Your task to perform on an android device: Is it going to rain this weekend? Image 0: 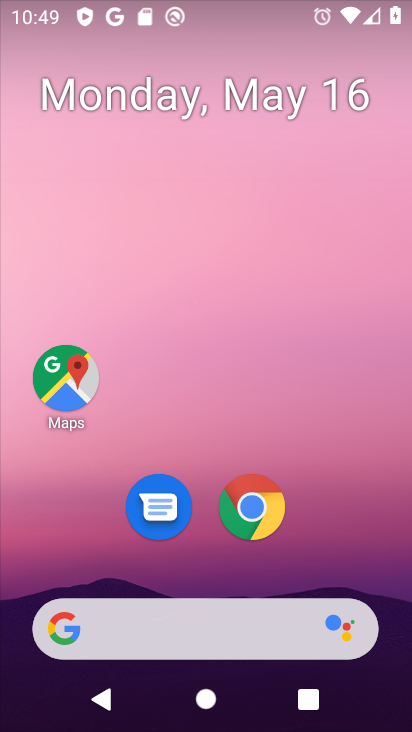
Step 0: click (212, 615)
Your task to perform on an android device: Is it going to rain this weekend? Image 1: 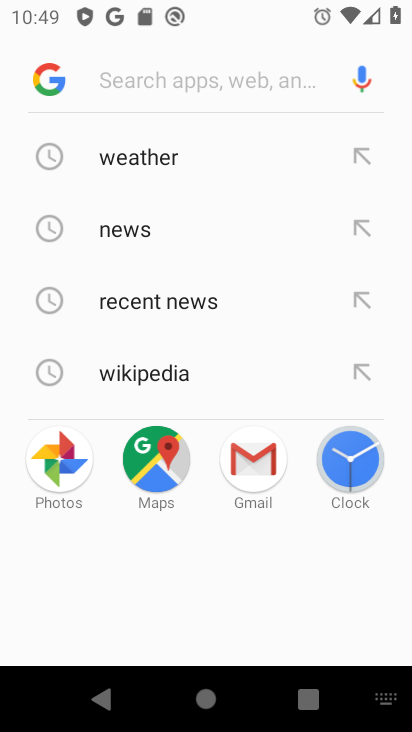
Step 1: click (181, 150)
Your task to perform on an android device: Is it going to rain this weekend? Image 2: 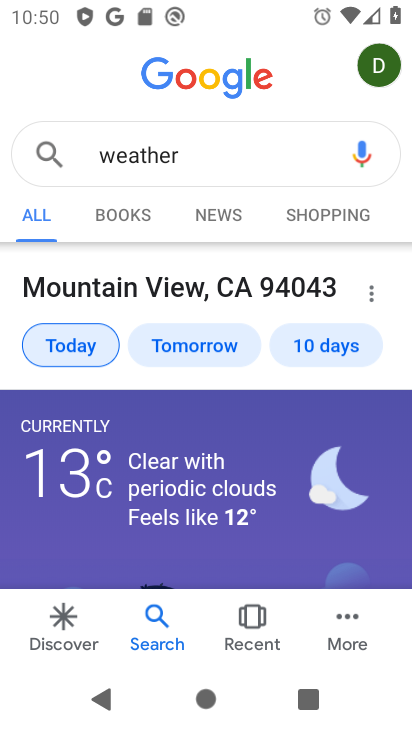
Step 2: click (319, 336)
Your task to perform on an android device: Is it going to rain this weekend? Image 3: 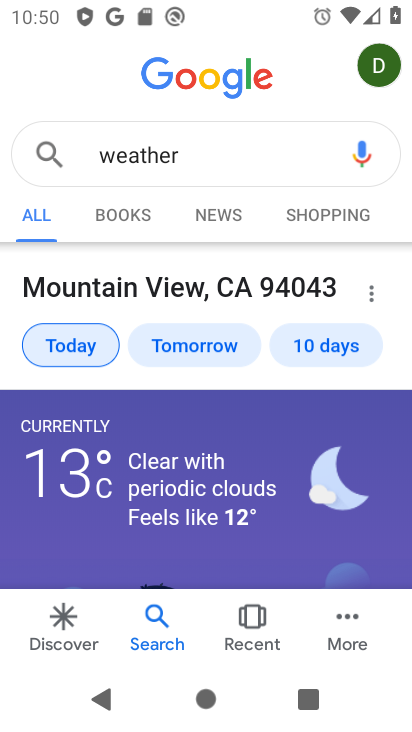
Step 3: click (319, 336)
Your task to perform on an android device: Is it going to rain this weekend? Image 4: 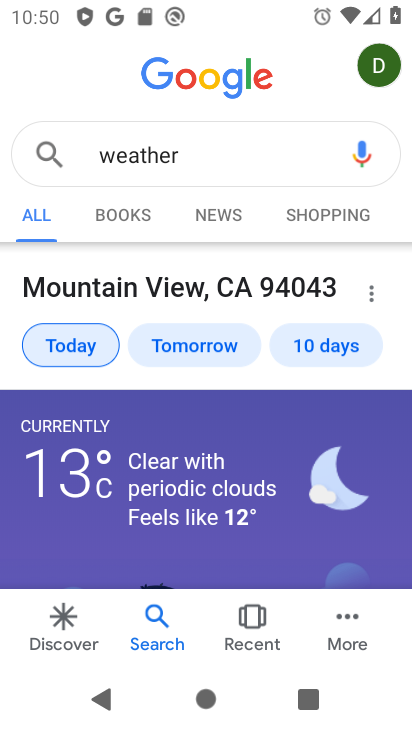
Step 4: click (319, 336)
Your task to perform on an android device: Is it going to rain this weekend? Image 5: 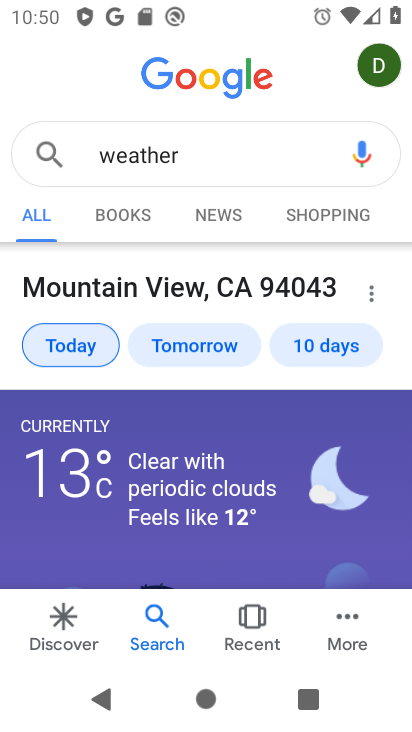
Step 5: click (319, 336)
Your task to perform on an android device: Is it going to rain this weekend? Image 6: 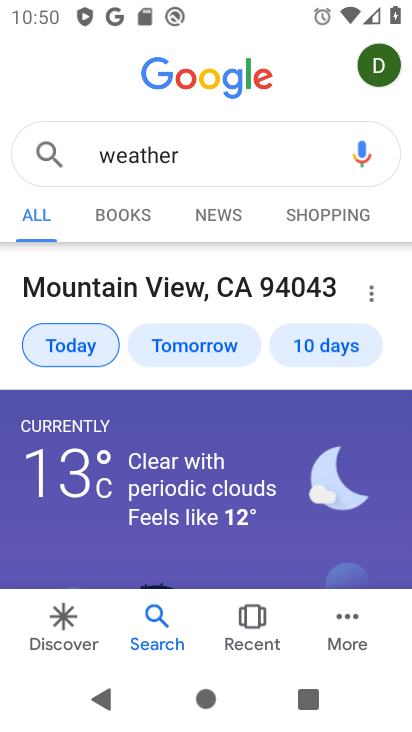
Step 6: click (319, 336)
Your task to perform on an android device: Is it going to rain this weekend? Image 7: 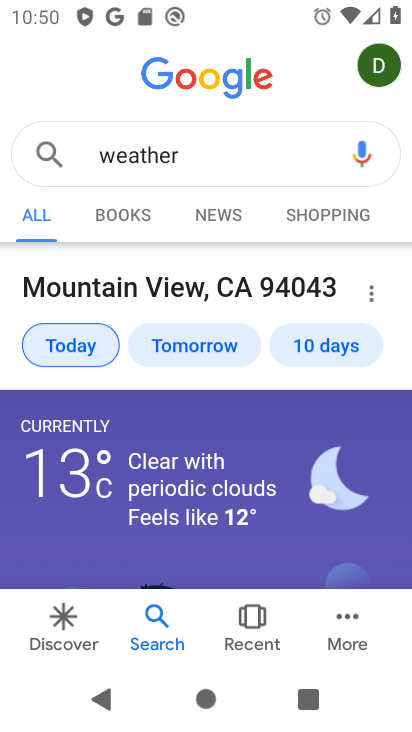
Step 7: click (319, 336)
Your task to perform on an android device: Is it going to rain this weekend? Image 8: 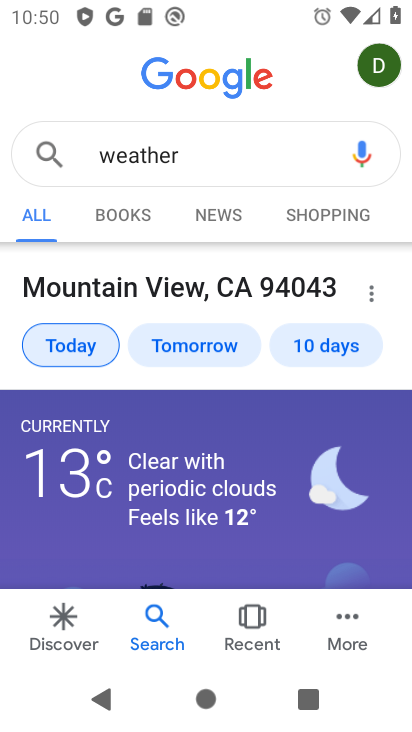
Step 8: click (319, 336)
Your task to perform on an android device: Is it going to rain this weekend? Image 9: 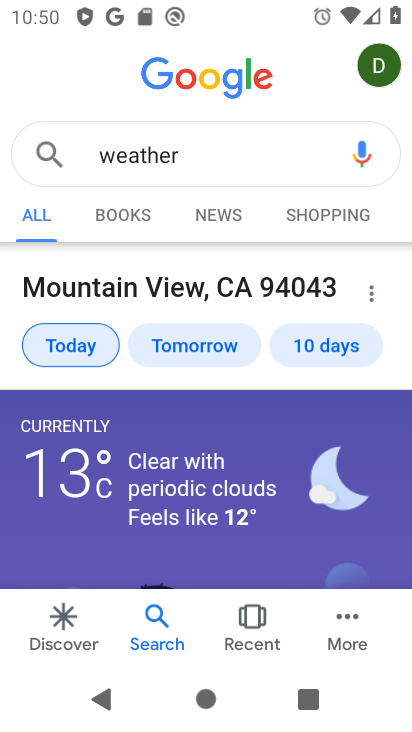
Step 9: click (319, 336)
Your task to perform on an android device: Is it going to rain this weekend? Image 10: 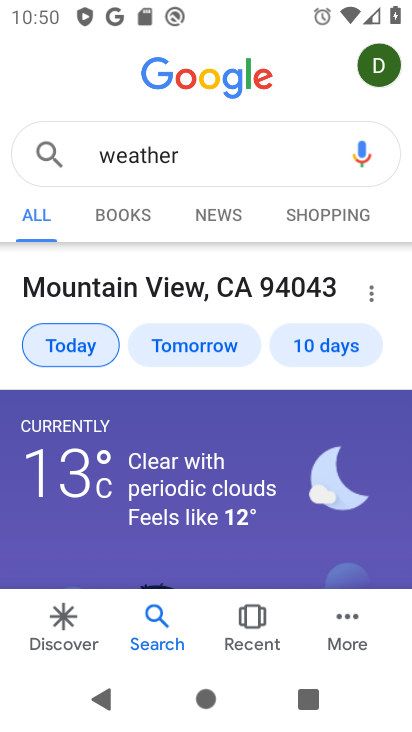
Step 10: click (319, 336)
Your task to perform on an android device: Is it going to rain this weekend? Image 11: 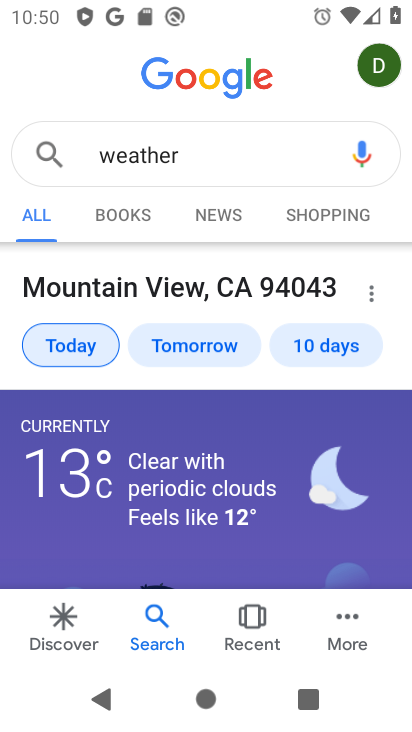
Step 11: click (319, 336)
Your task to perform on an android device: Is it going to rain this weekend? Image 12: 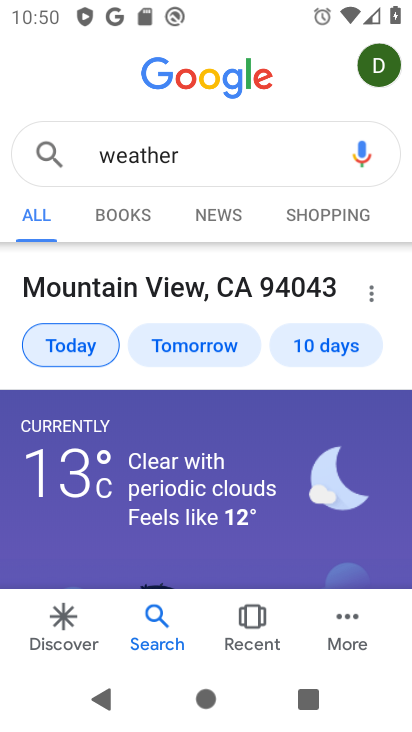
Step 12: click (319, 336)
Your task to perform on an android device: Is it going to rain this weekend? Image 13: 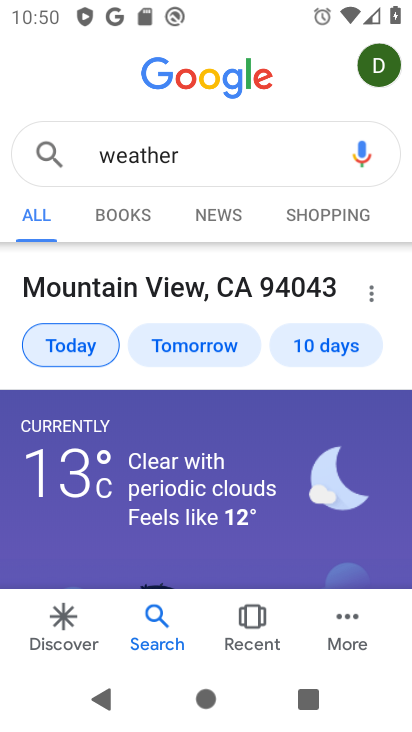
Step 13: drag from (296, 563) to (230, 287)
Your task to perform on an android device: Is it going to rain this weekend? Image 14: 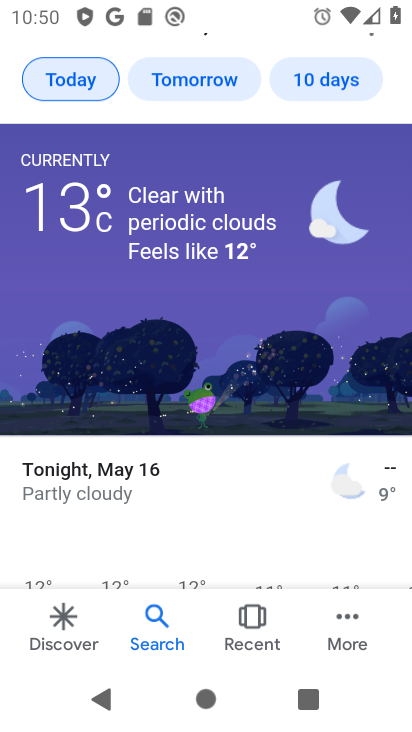
Step 14: drag from (270, 527) to (226, 235)
Your task to perform on an android device: Is it going to rain this weekend? Image 15: 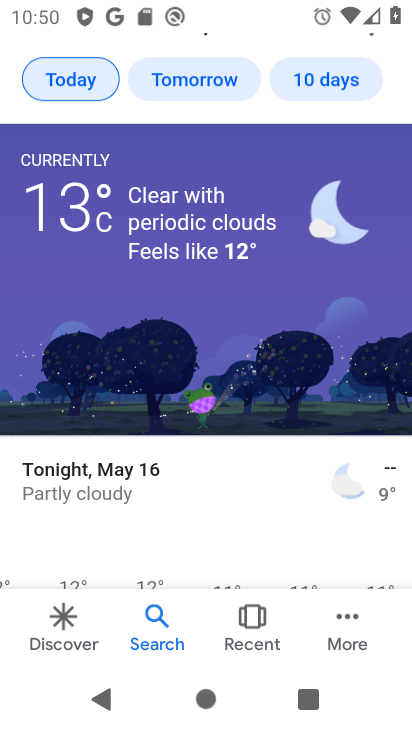
Step 15: click (323, 89)
Your task to perform on an android device: Is it going to rain this weekend? Image 16: 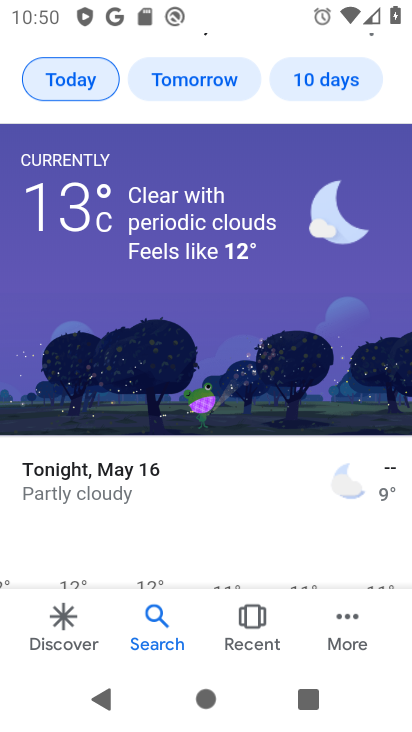
Step 16: click (323, 89)
Your task to perform on an android device: Is it going to rain this weekend? Image 17: 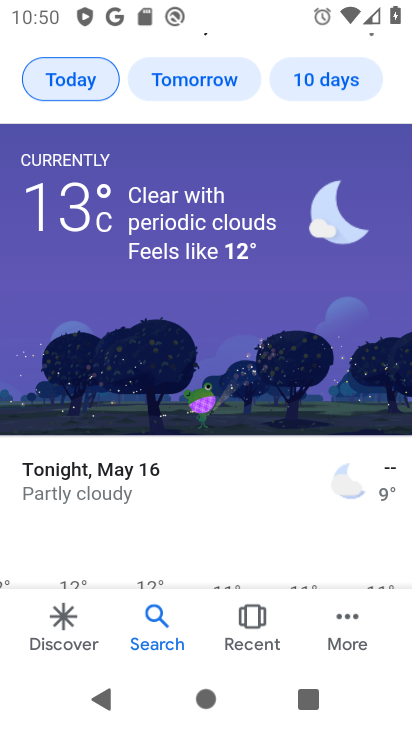
Step 17: task complete